Your task to perform on an android device: turn pop-ups off in chrome Image 0: 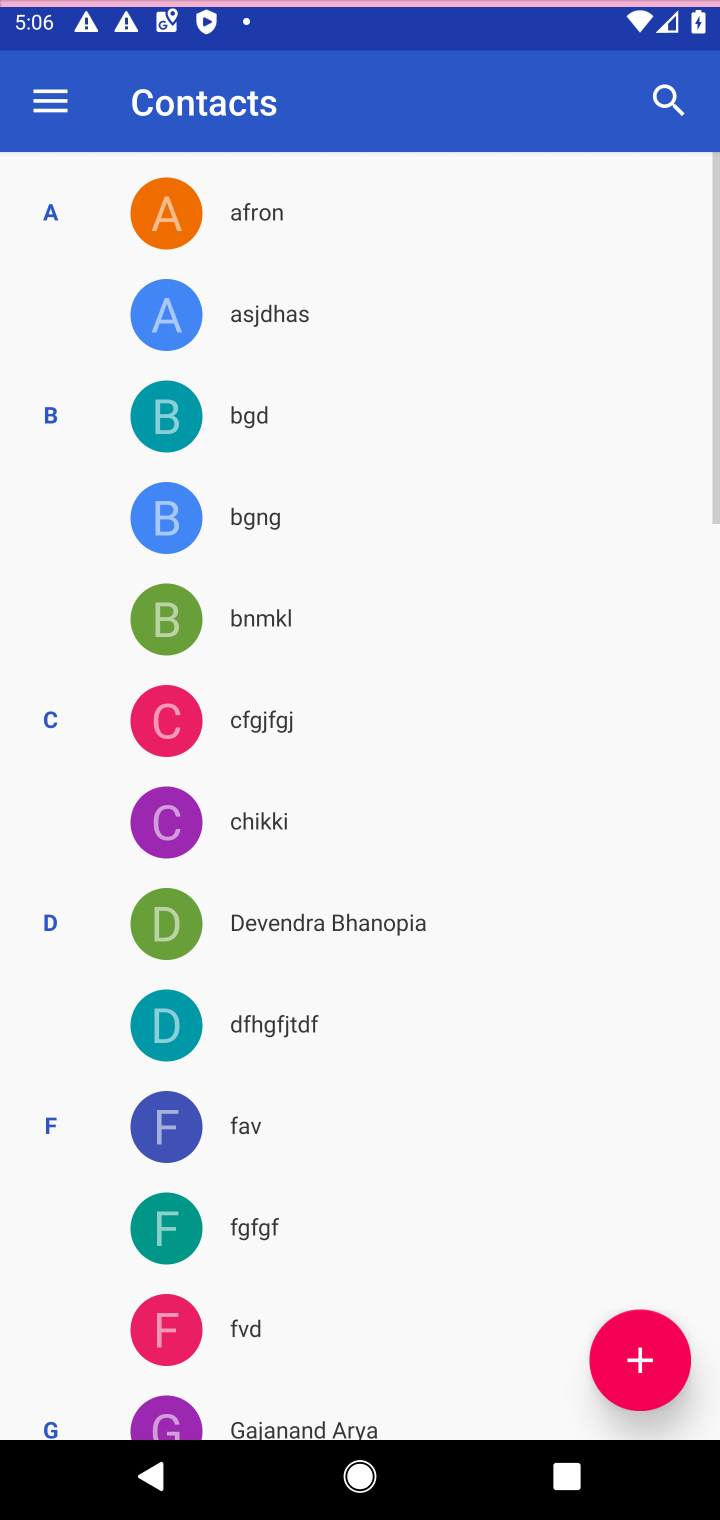
Step 0: press home button
Your task to perform on an android device: turn pop-ups off in chrome Image 1: 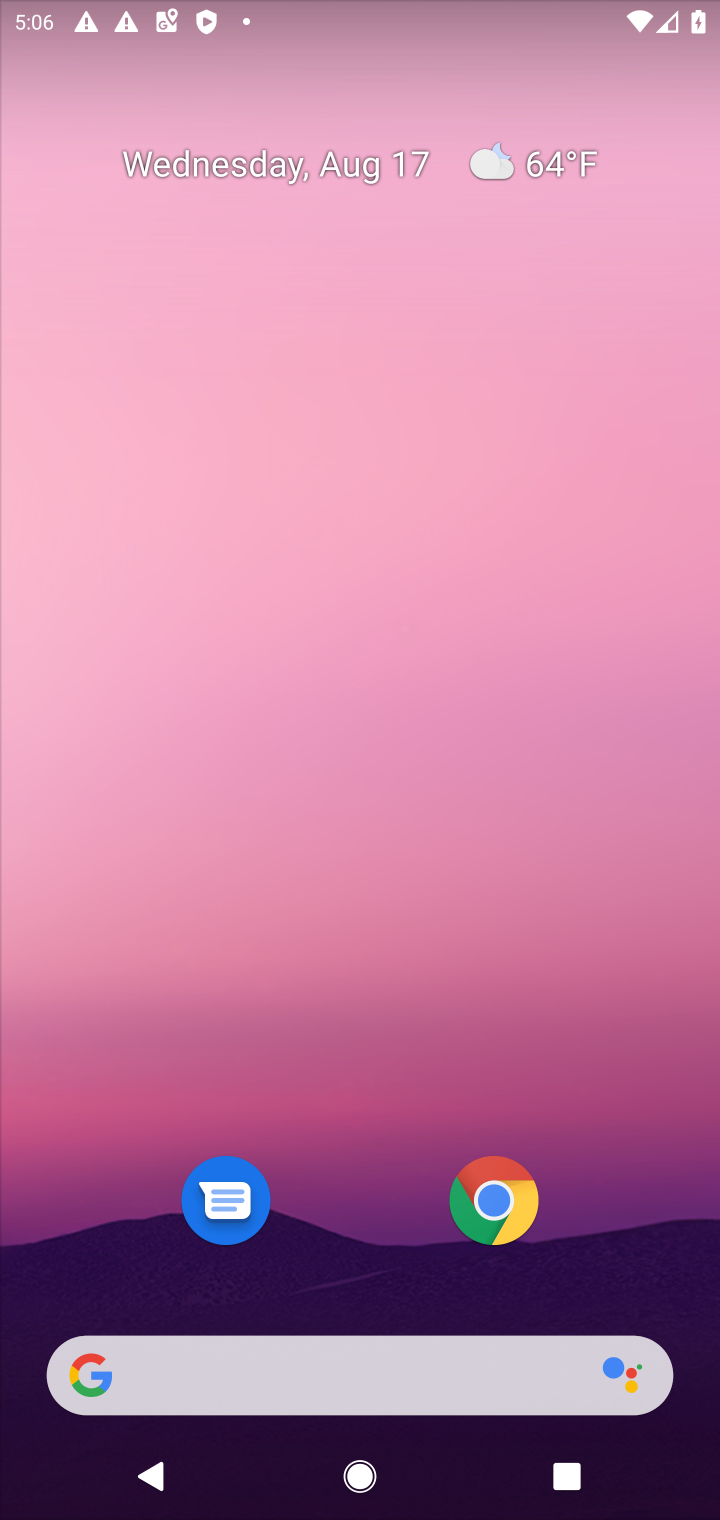
Step 1: press home button
Your task to perform on an android device: turn pop-ups off in chrome Image 2: 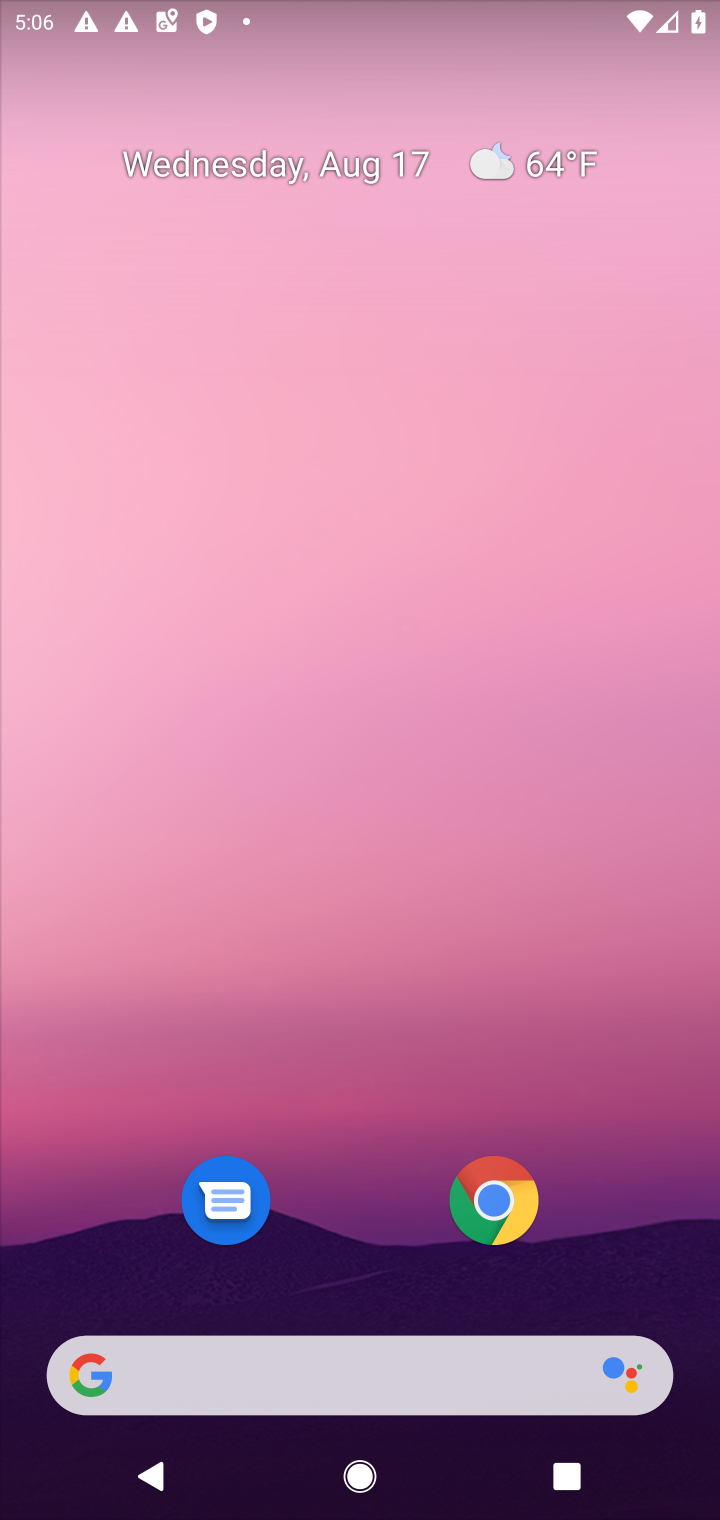
Step 2: click (485, 1211)
Your task to perform on an android device: turn pop-ups off in chrome Image 3: 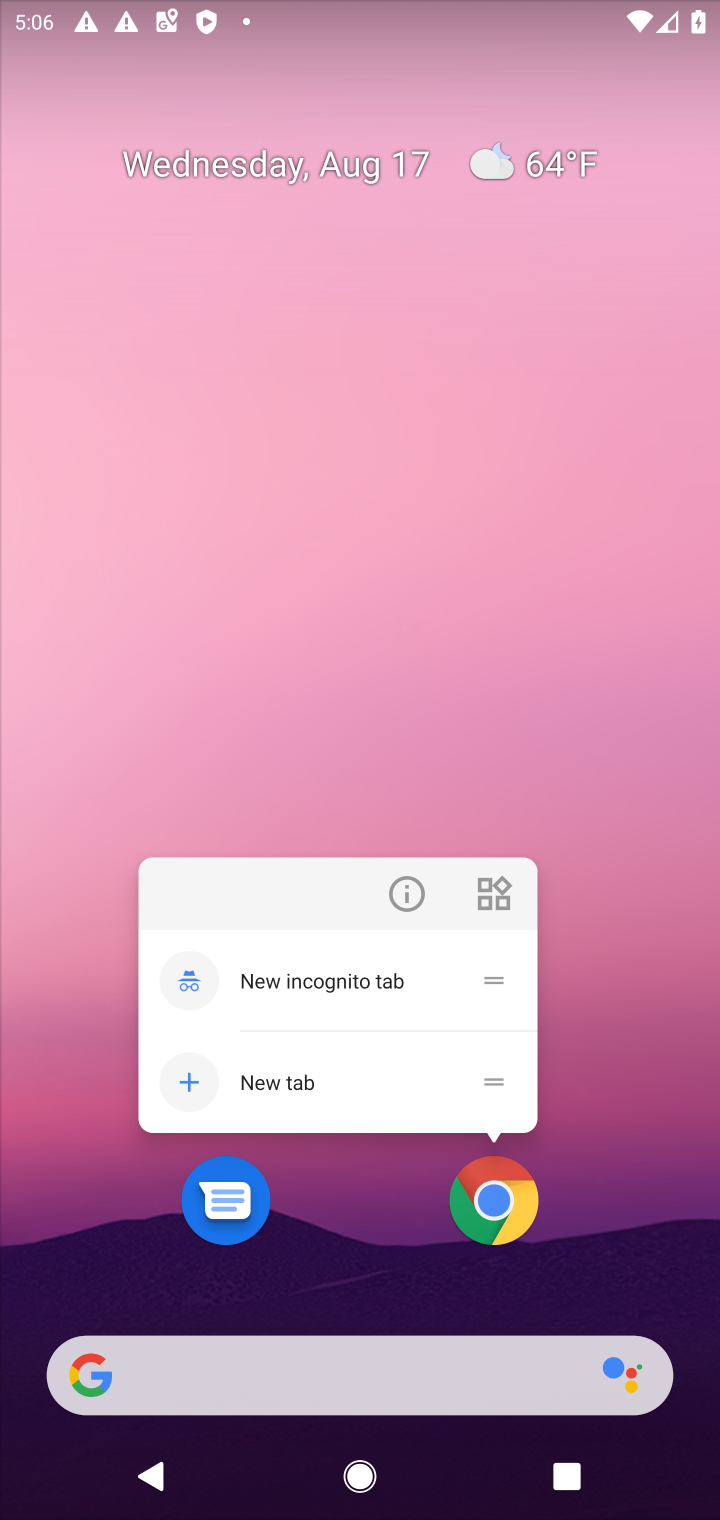
Step 3: click (485, 1211)
Your task to perform on an android device: turn pop-ups off in chrome Image 4: 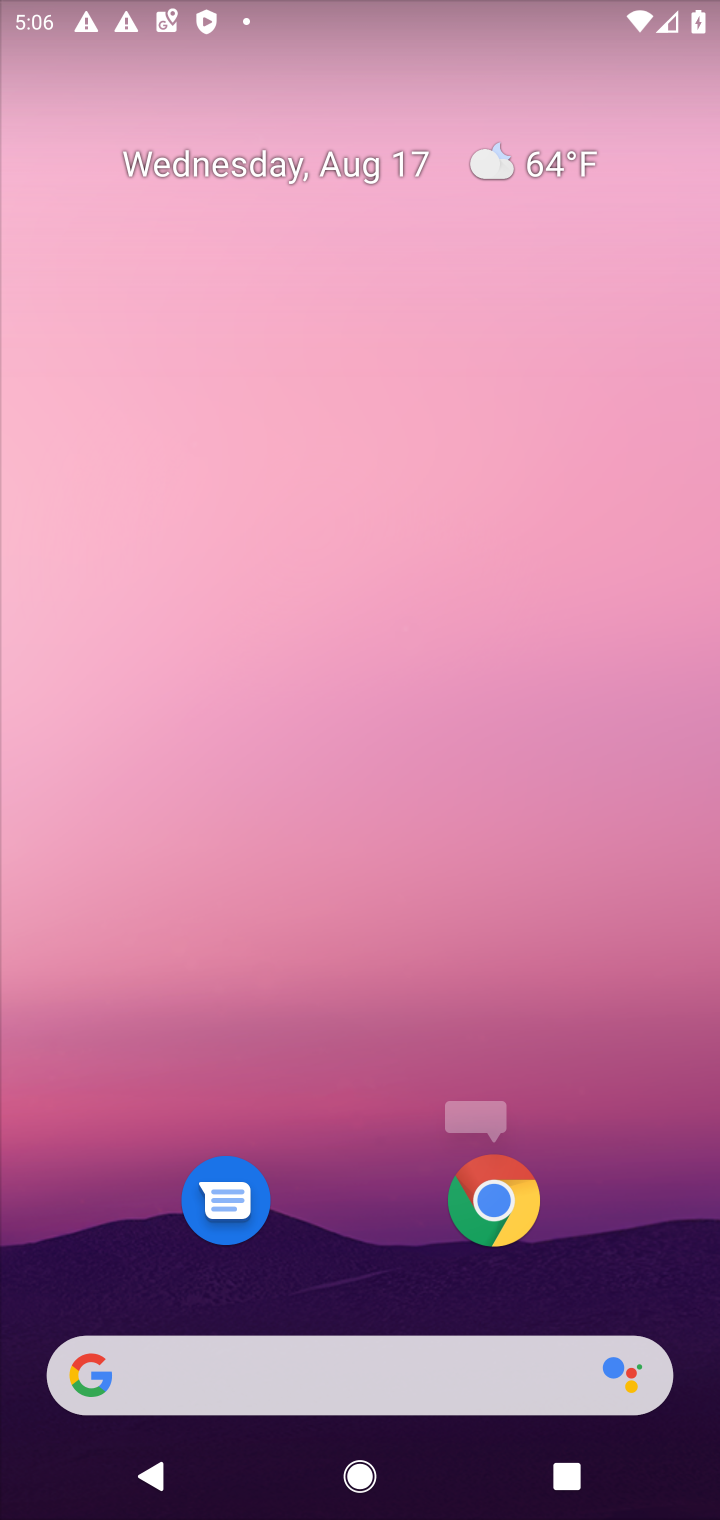
Step 4: click (485, 1211)
Your task to perform on an android device: turn pop-ups off in chrome Image 5: 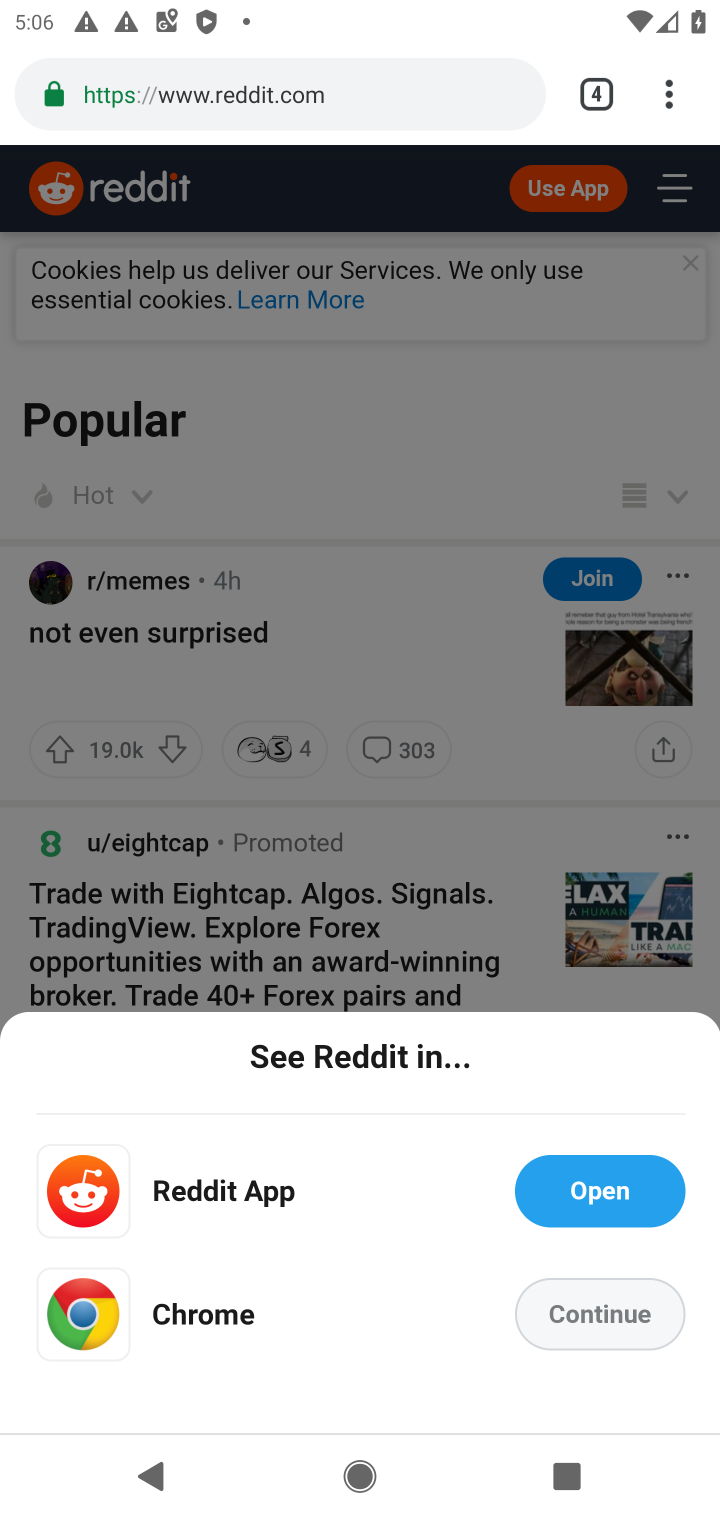
Step 5: click (668, 97)
Your task to perform on an android device: turn pop-ups off in chrome Image 6: 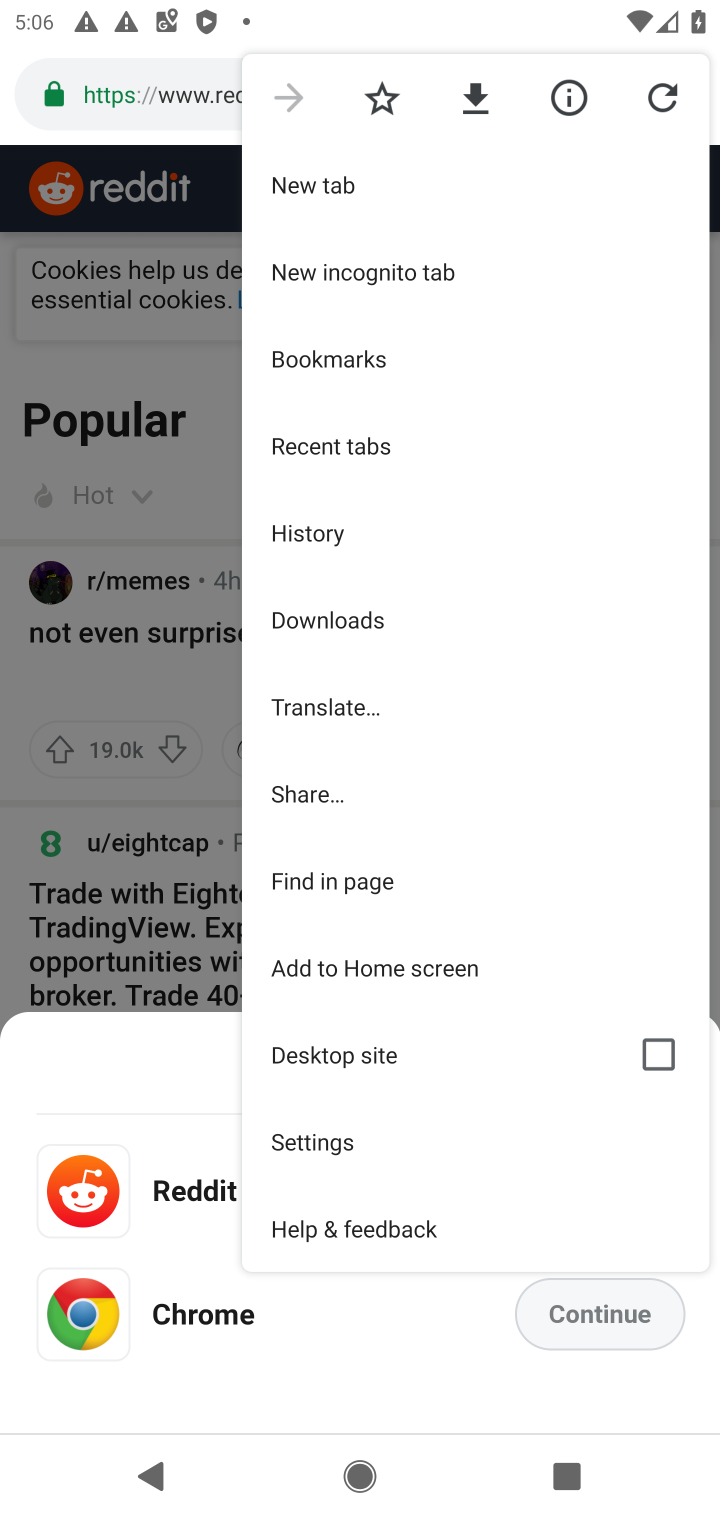
Step 6: click (307, 1148)
Your task to perform on an android device: turn pop-ups off in chrome Image 7: 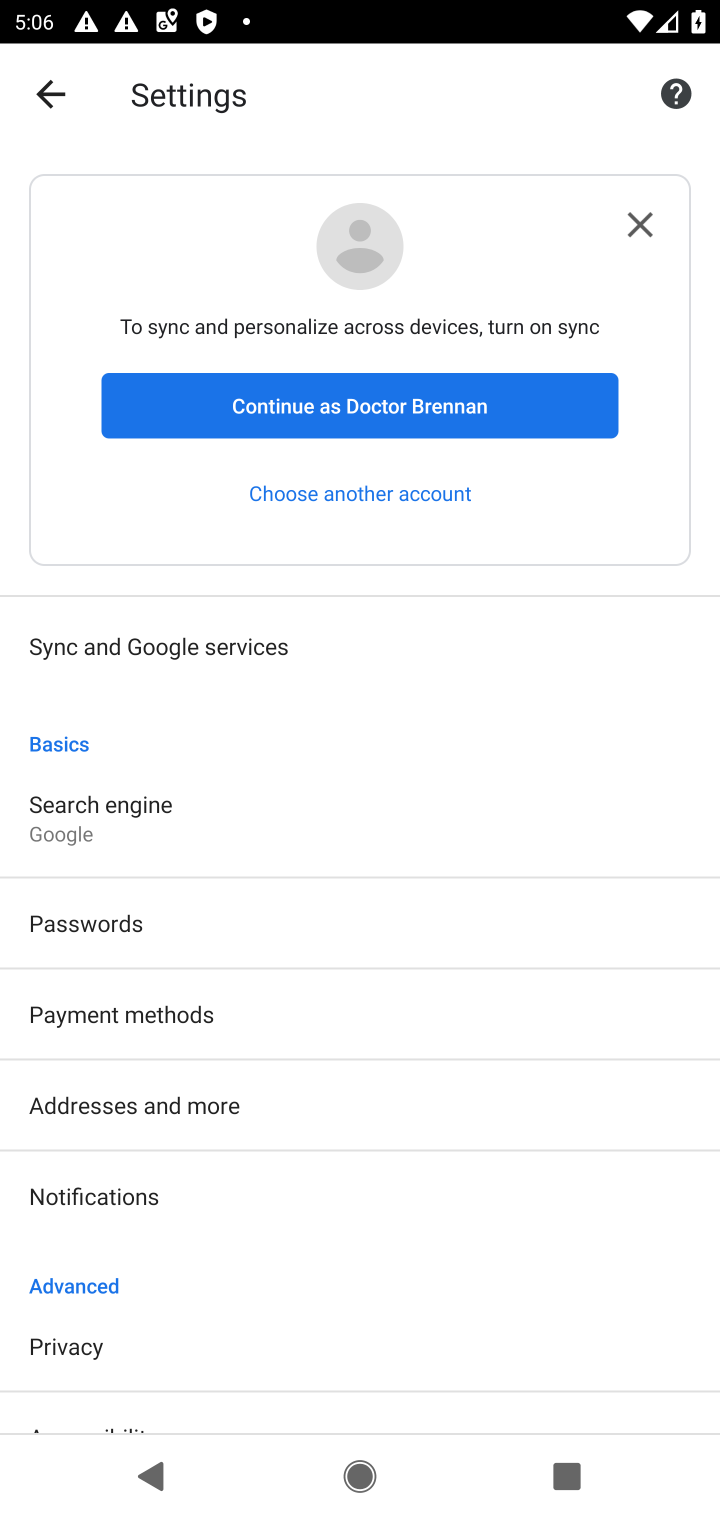
Step 7: drag from (126, 1325) to (61, 641)
Your task to perform on an android device: turn pop-ups off in chrome Image 8: 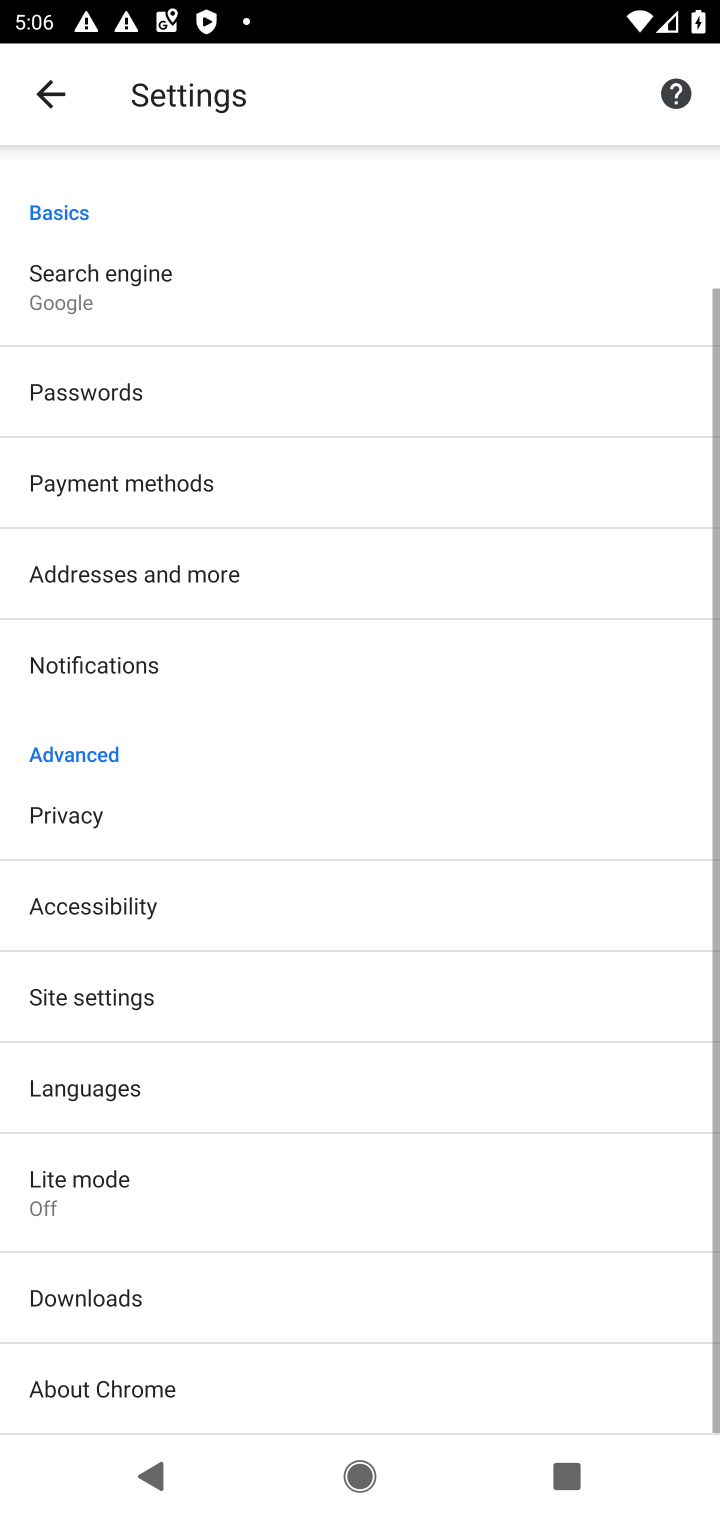
Step 8: click (102, 1004)
Your task to perform on an android device: turn pop-ups off in chrome Image 9: 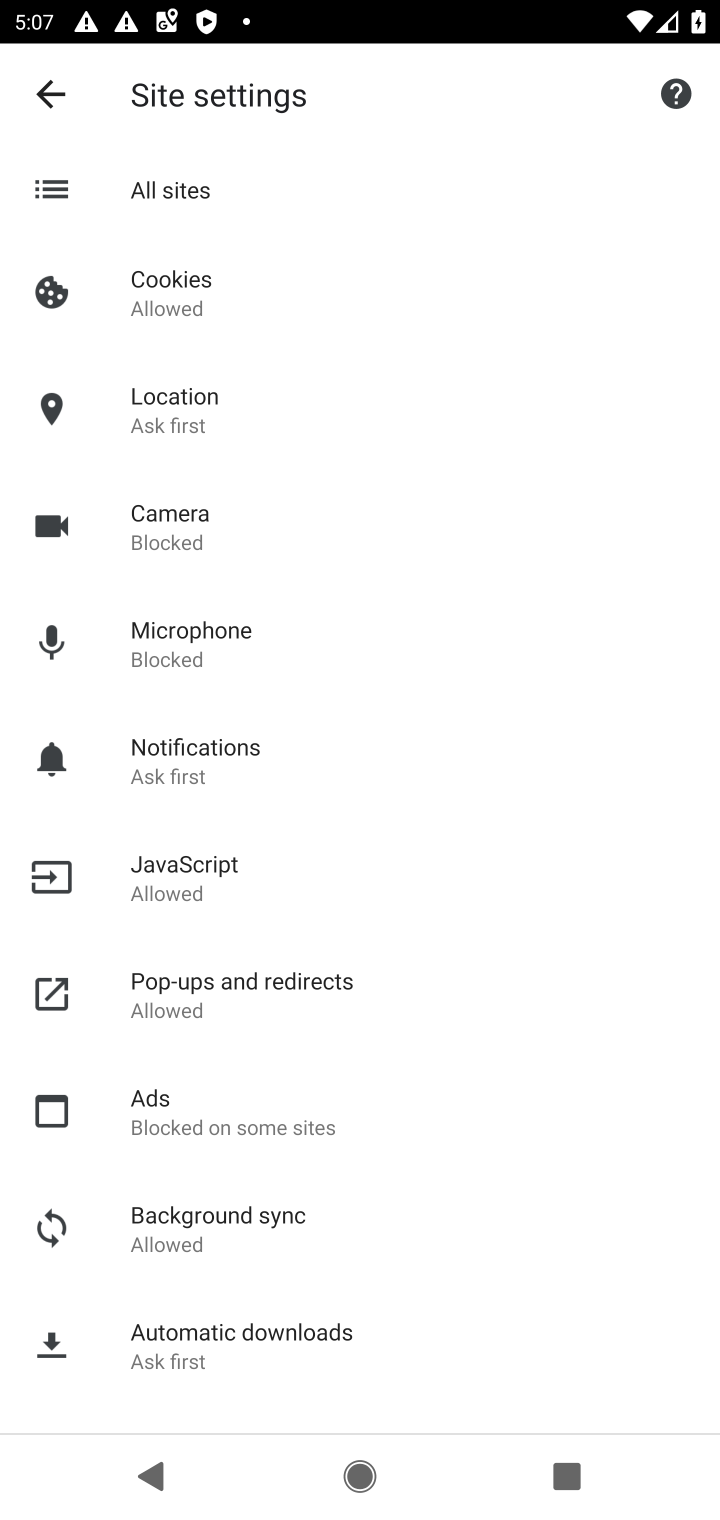
Step 9: click (195, 980)
Your task to perform on an android device: turn pop-ups off in chrome Image 10: 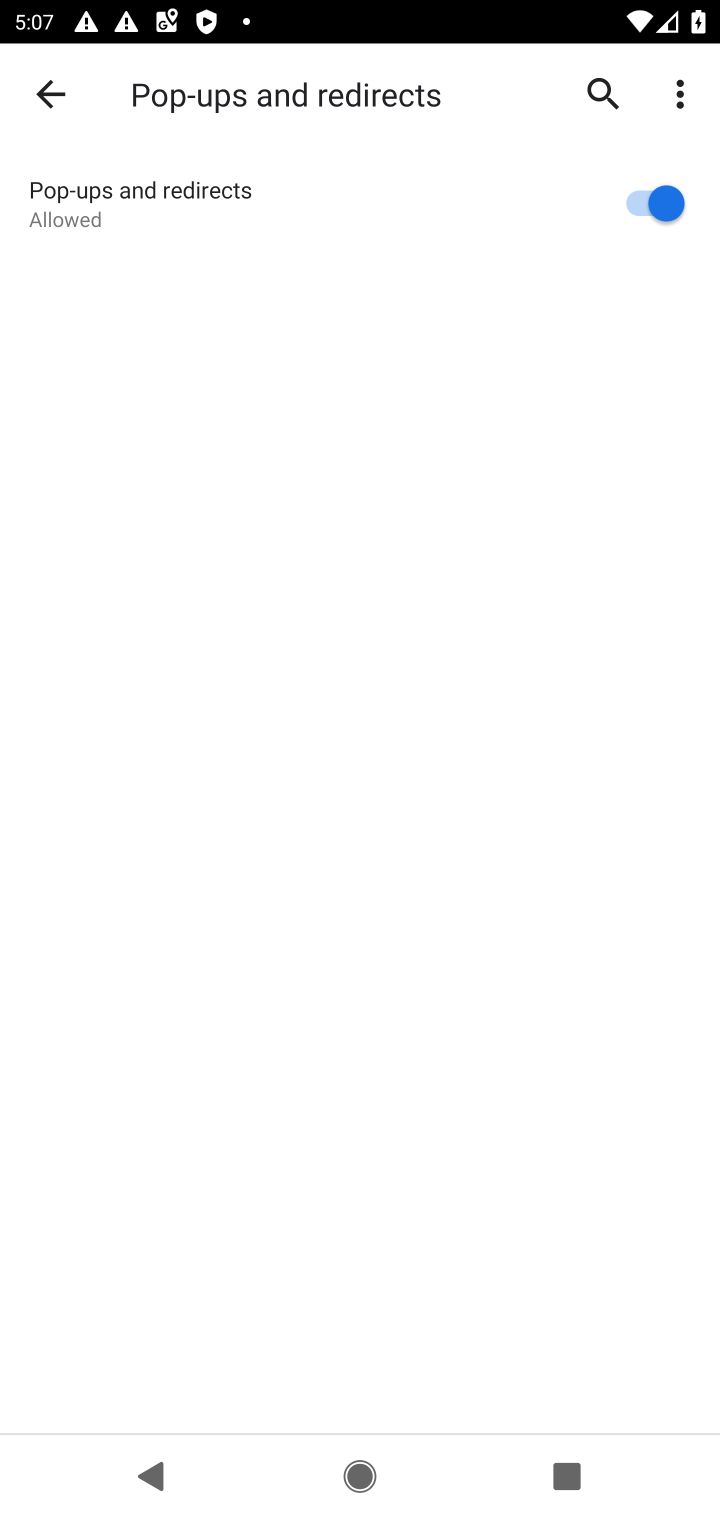
Step 10: click (641, 206)
Your task to perform on an android device: turn pop-ups off in chrome Image 11: 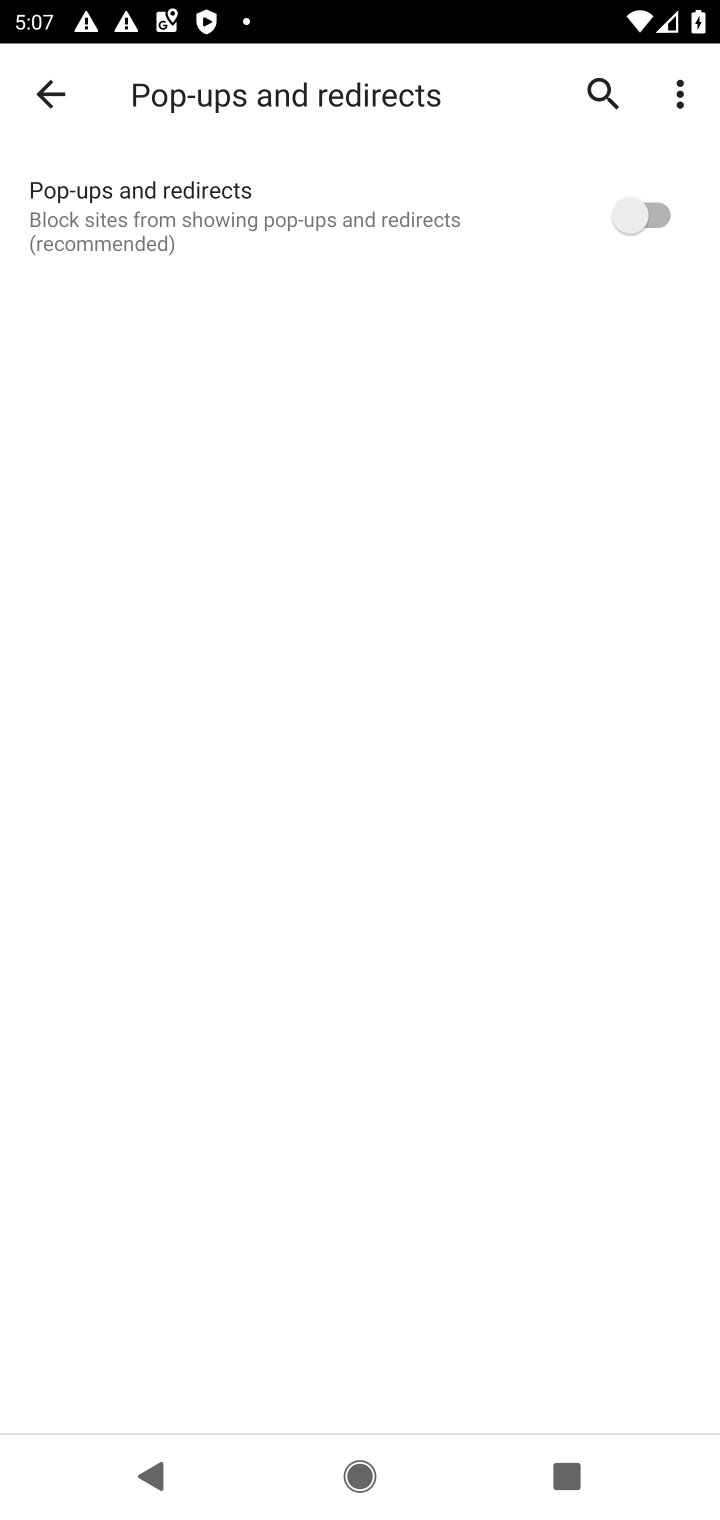
Step 11: task complete